Your task to perform on an android device: turn off notifications settings in the gmail app Image 0: 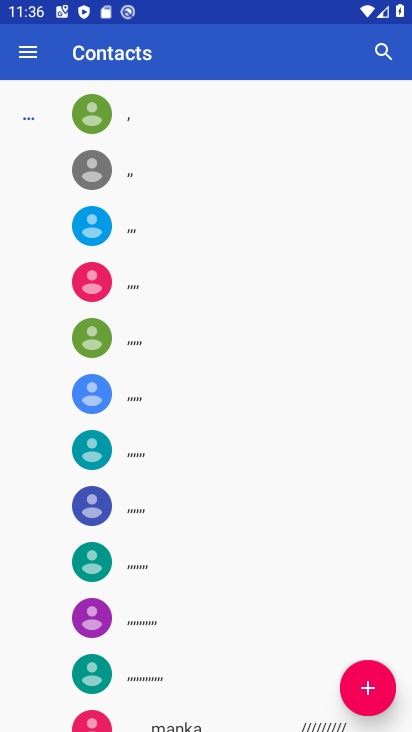
Step 0: task complete